Your task to perform on an android device: add a contact Image 0: 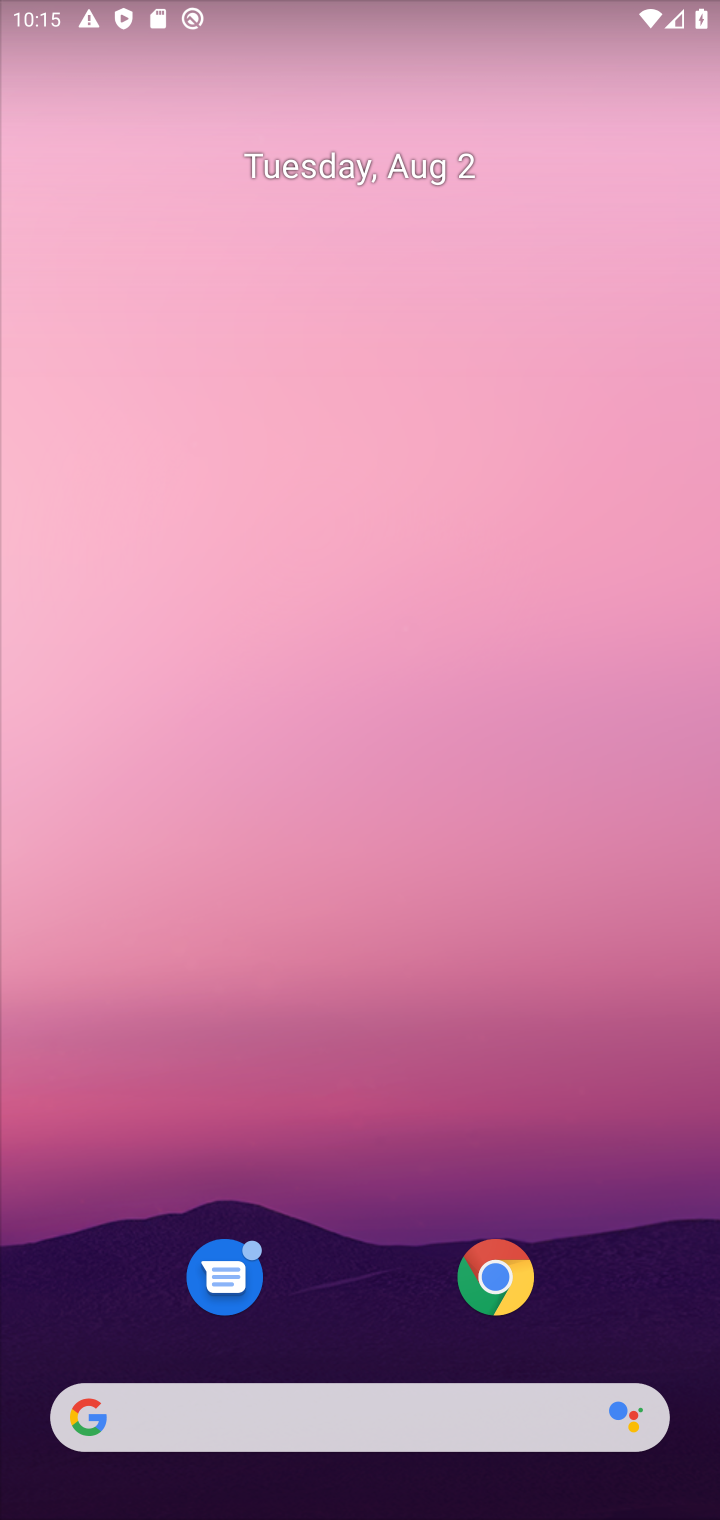
Step 0: press home button
Your task to perform on an android device: add a contact Image 1: 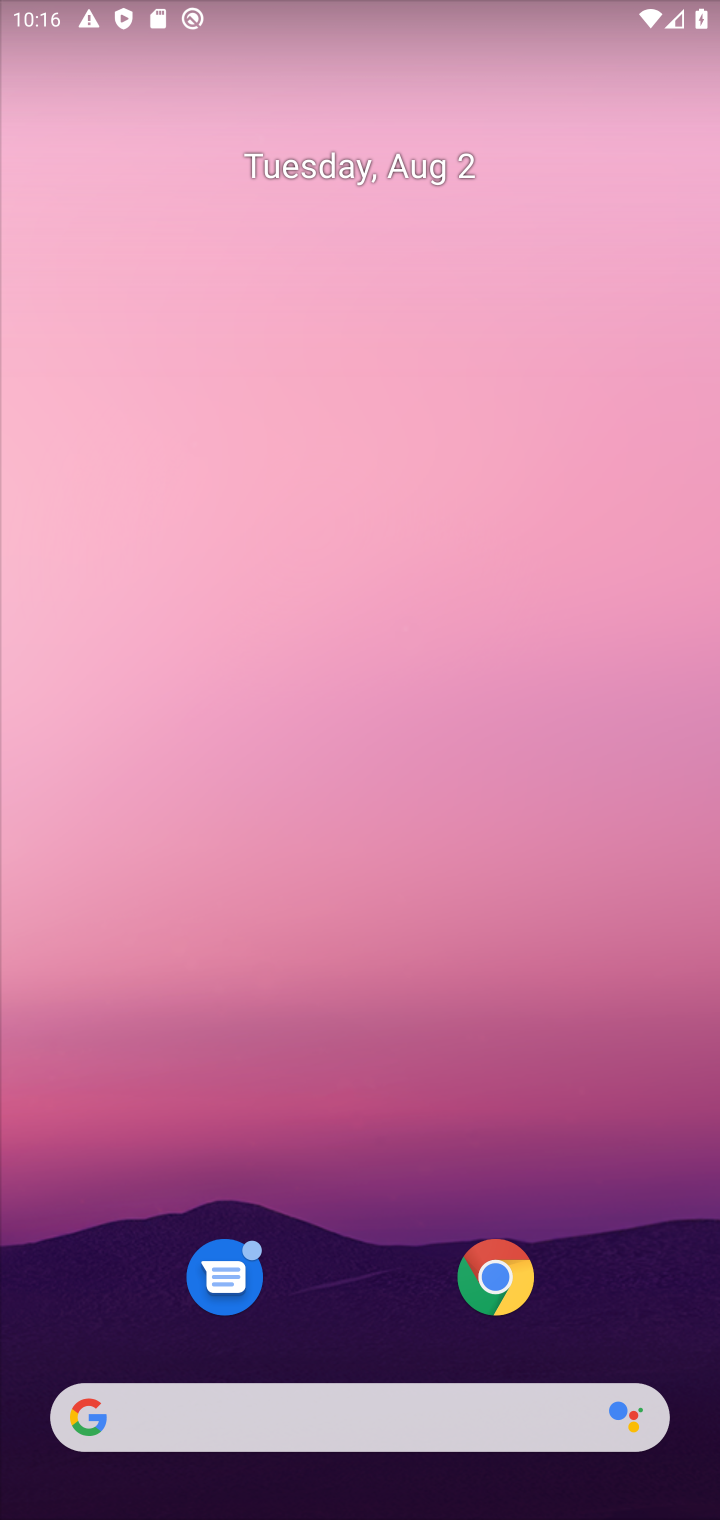
Step 1: drag from (382, 1292) to (604, 165)
Your task to perform on an android device: add a contact Image 2: 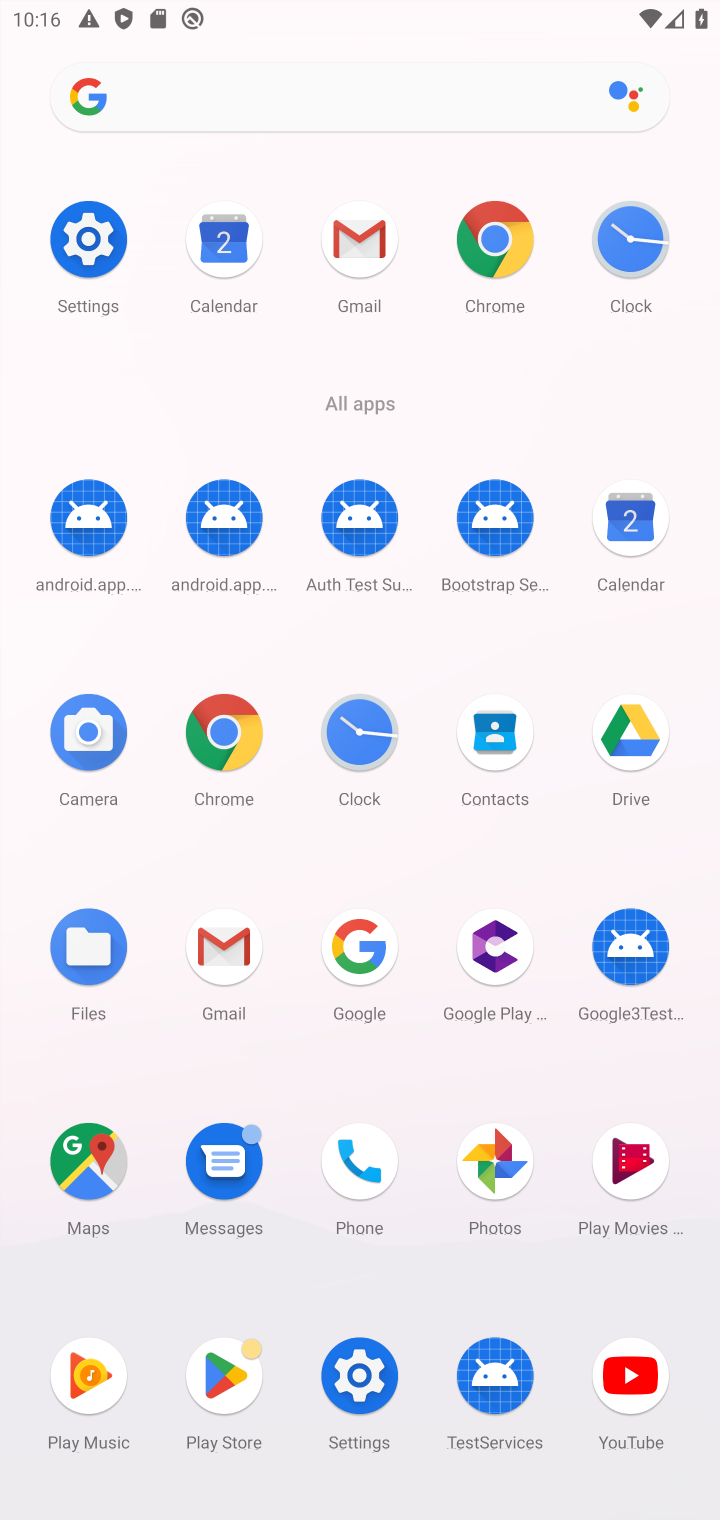
Step 2: click (498, 723)
Your task to perform on an android device: add a contact Image 3: 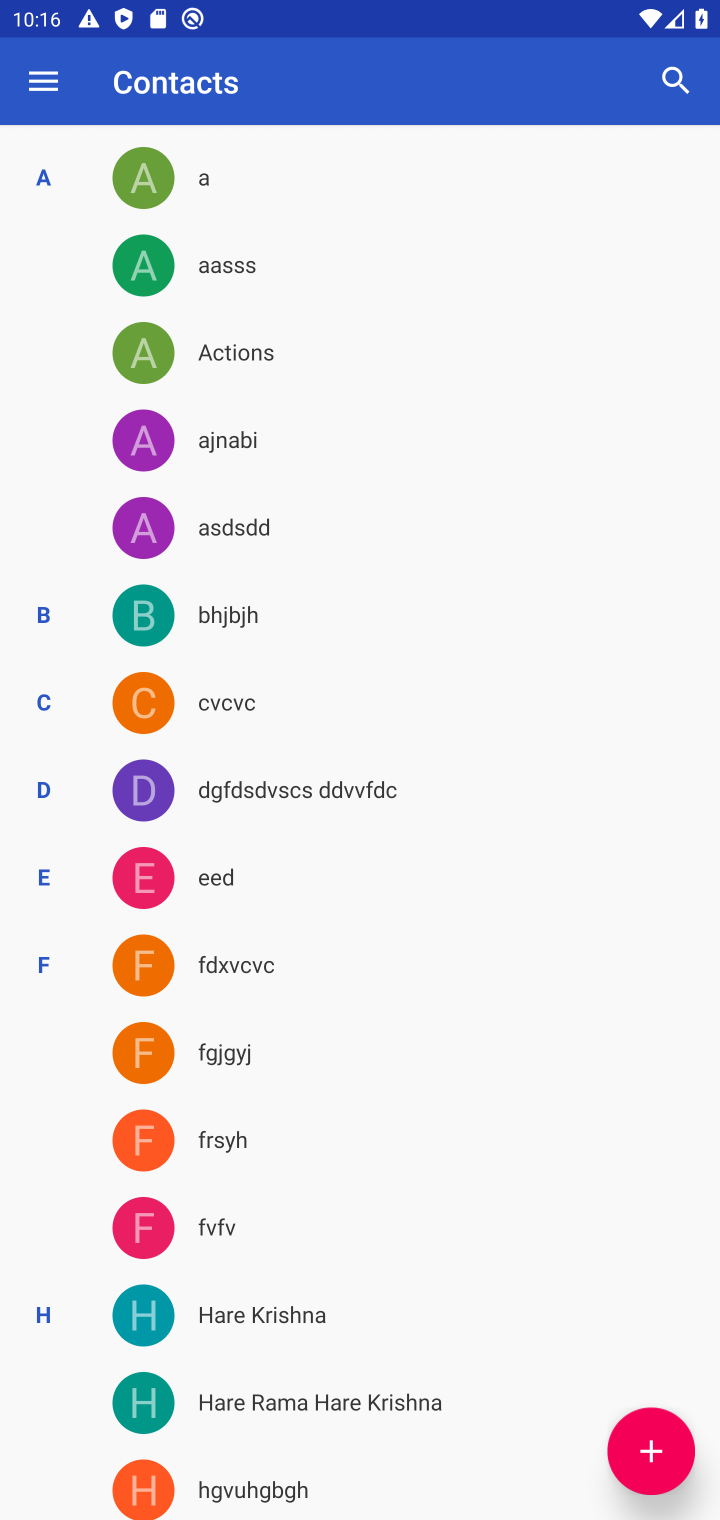
Step 3: click (663, 1451)
Your task to perform on an android device: add a contact Image 4: 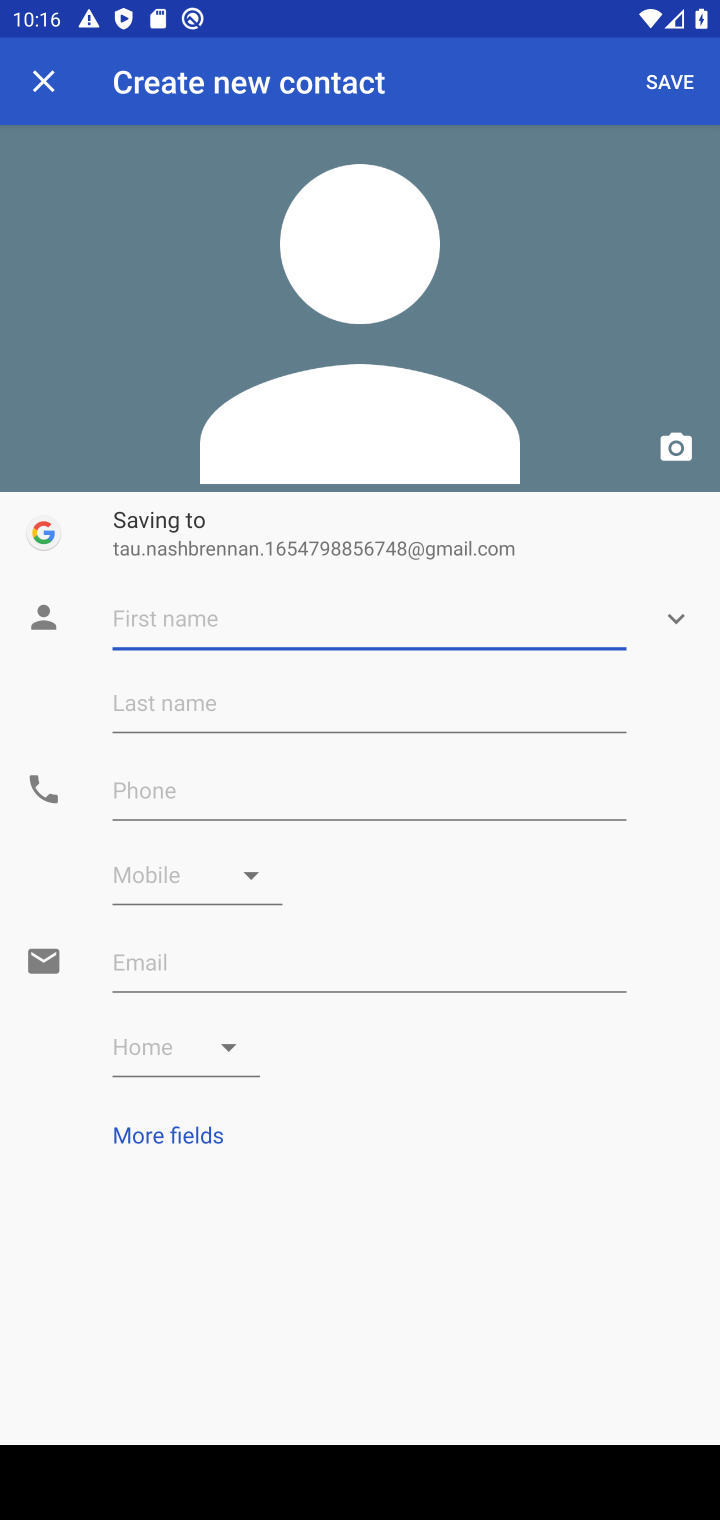
Step 4: type "hghghghgh"
Your task to perform on an android device: add a contact Image 5: 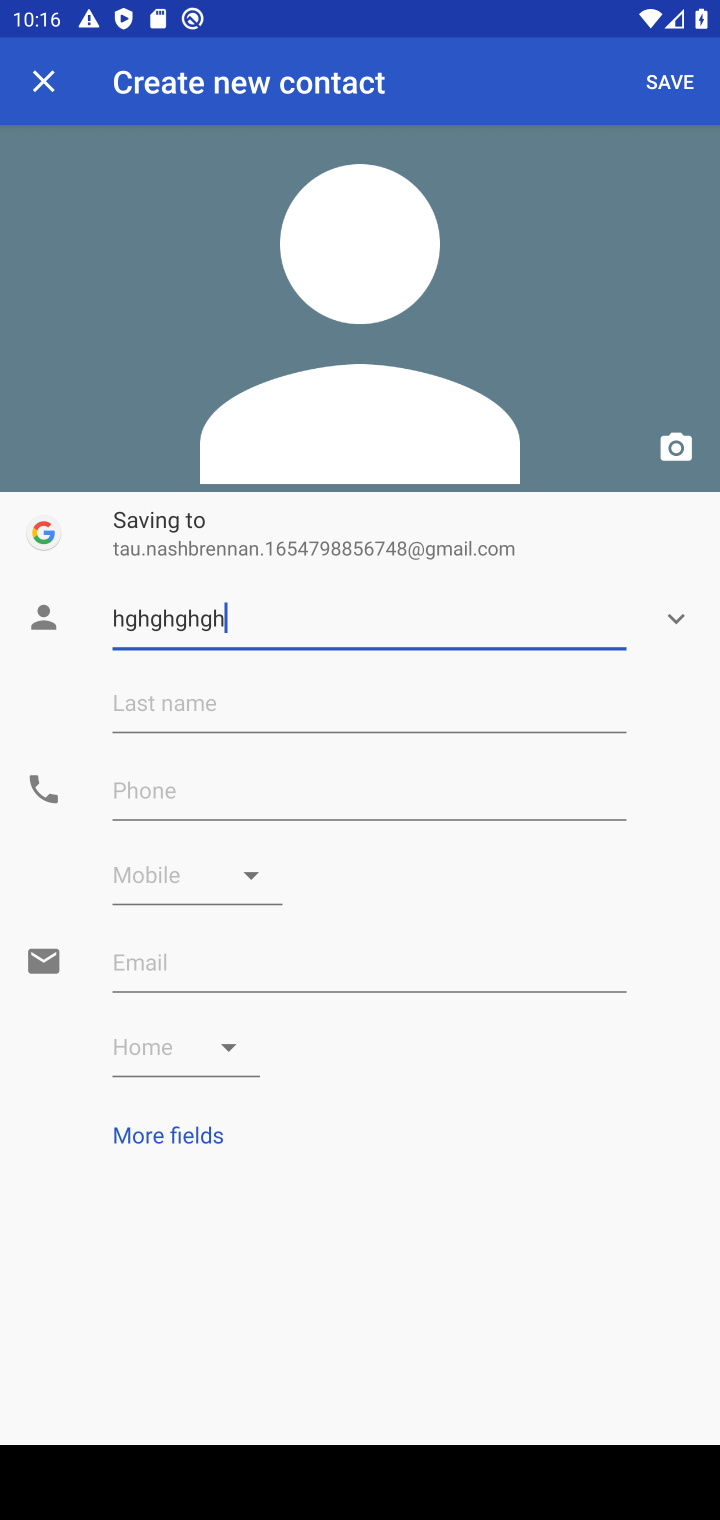
Step 5: click (217, 770)
Your task to perform on an android device: add a contact Image 6: 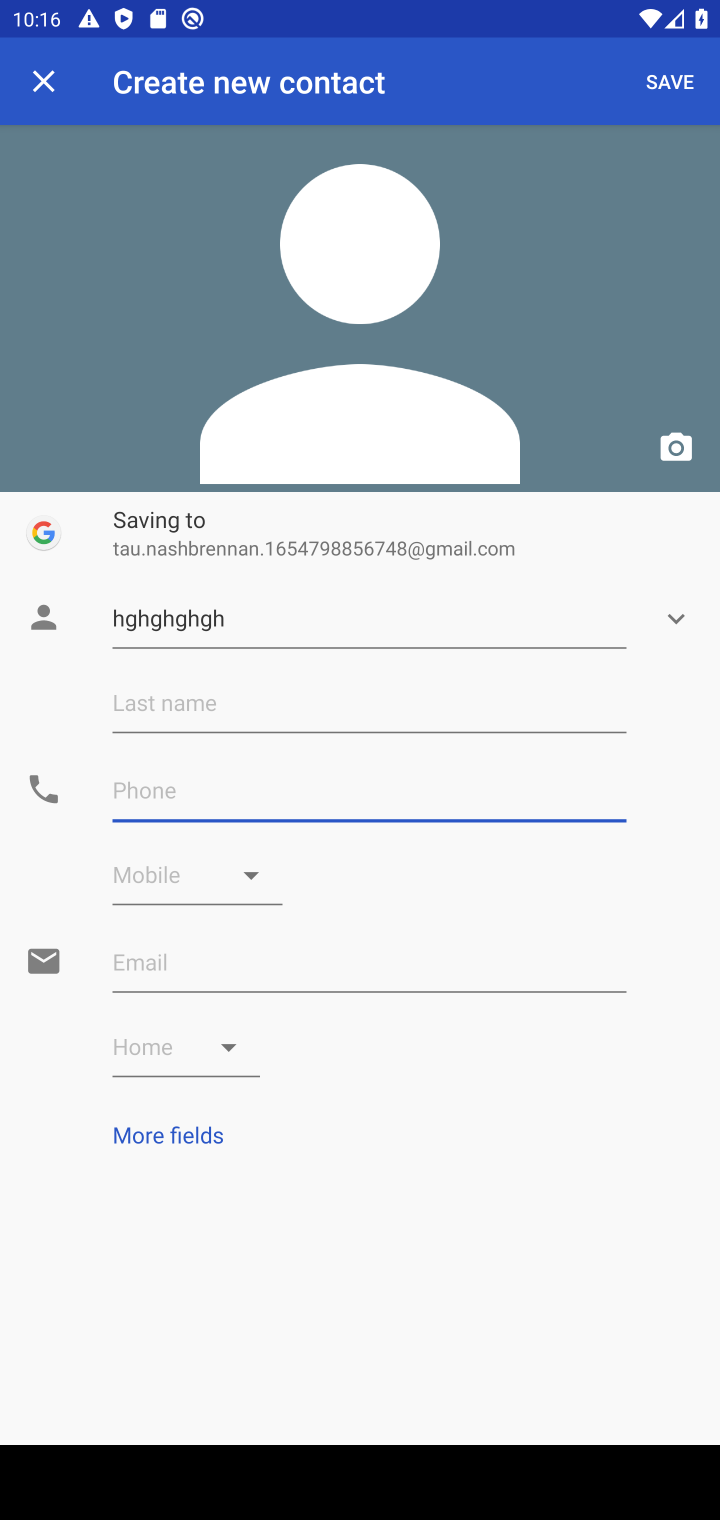
Step 6: type "676767676"
Your task to perform on an android device: add a contact Image 7: 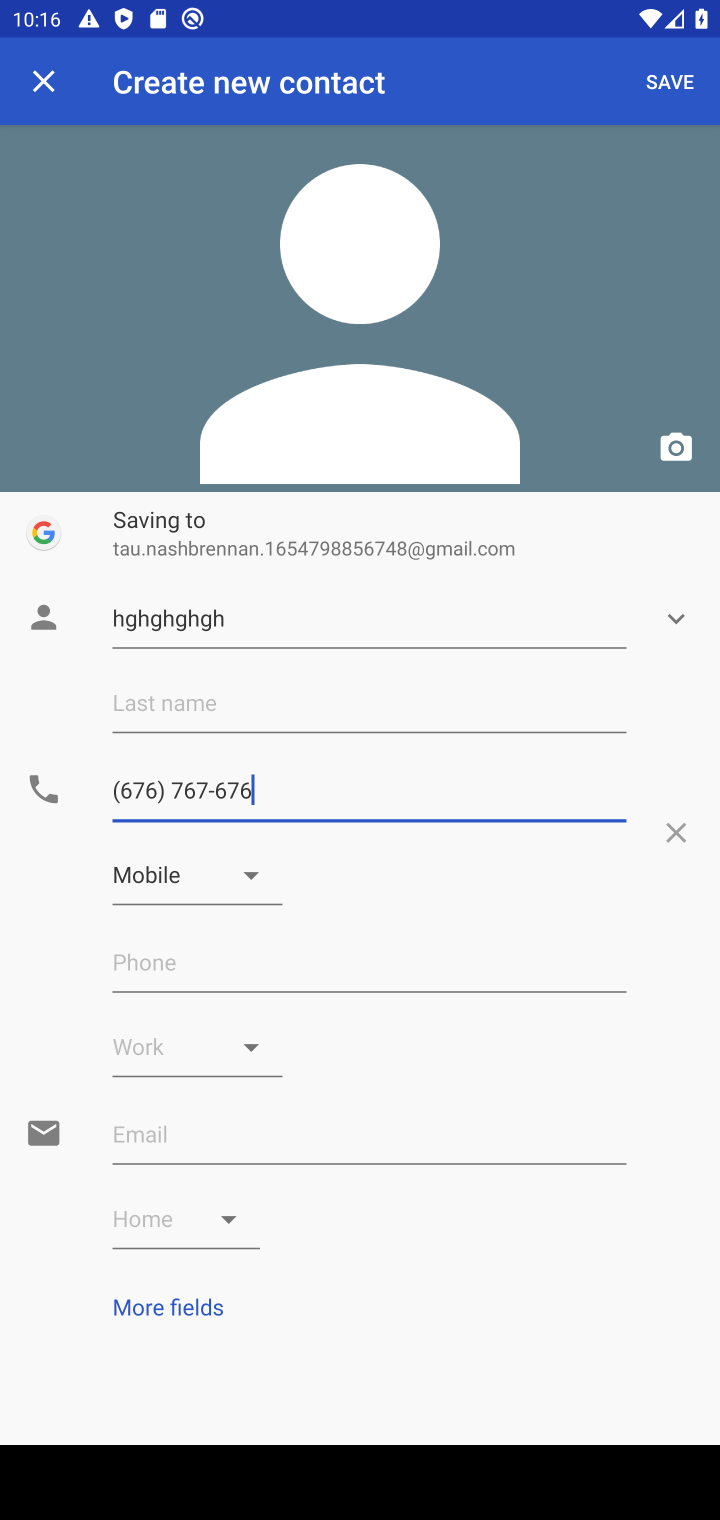
Step 7: click (658, 96)
Your task to perform on an android device: add a contact Image 8: 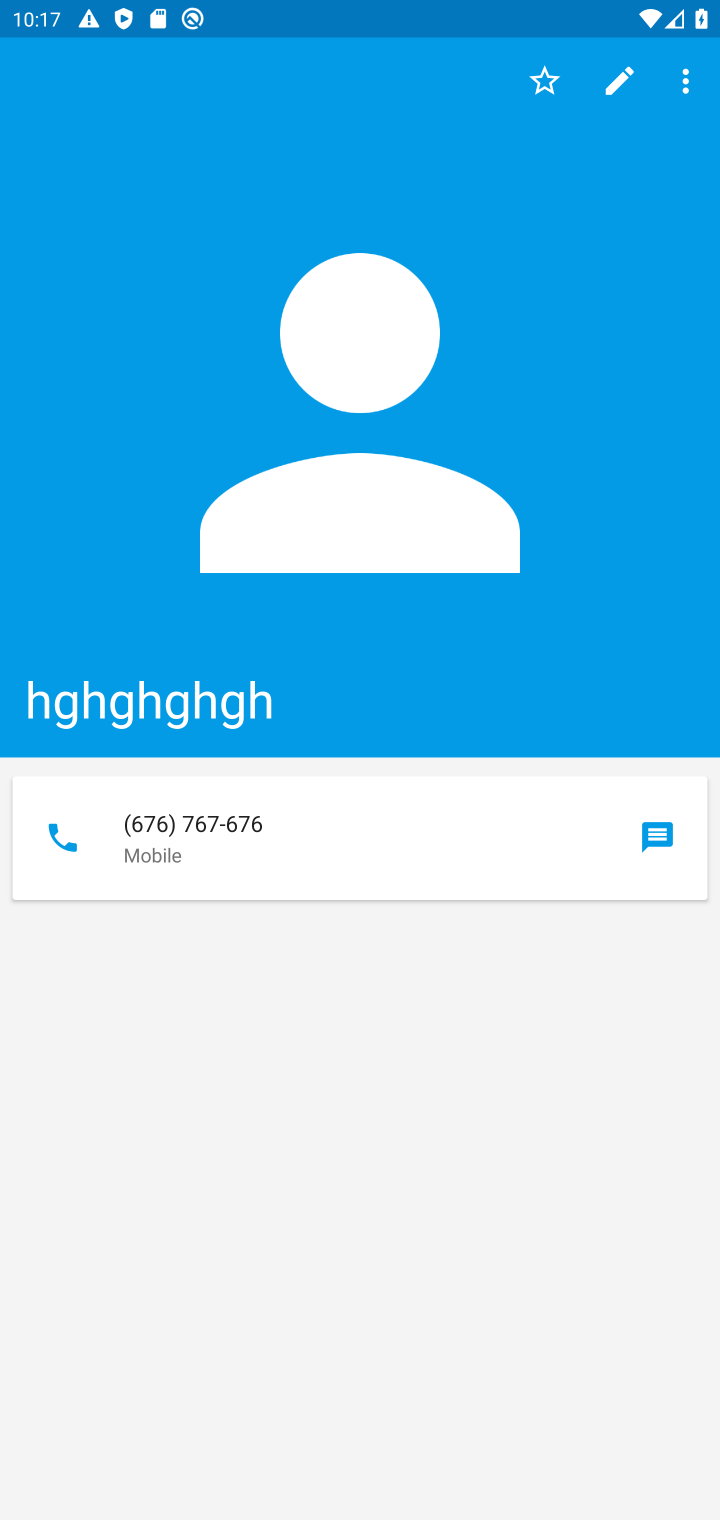
Step 8: task complete